Your task to perform on an android device: toggle javascript in the chrome app Image 0: 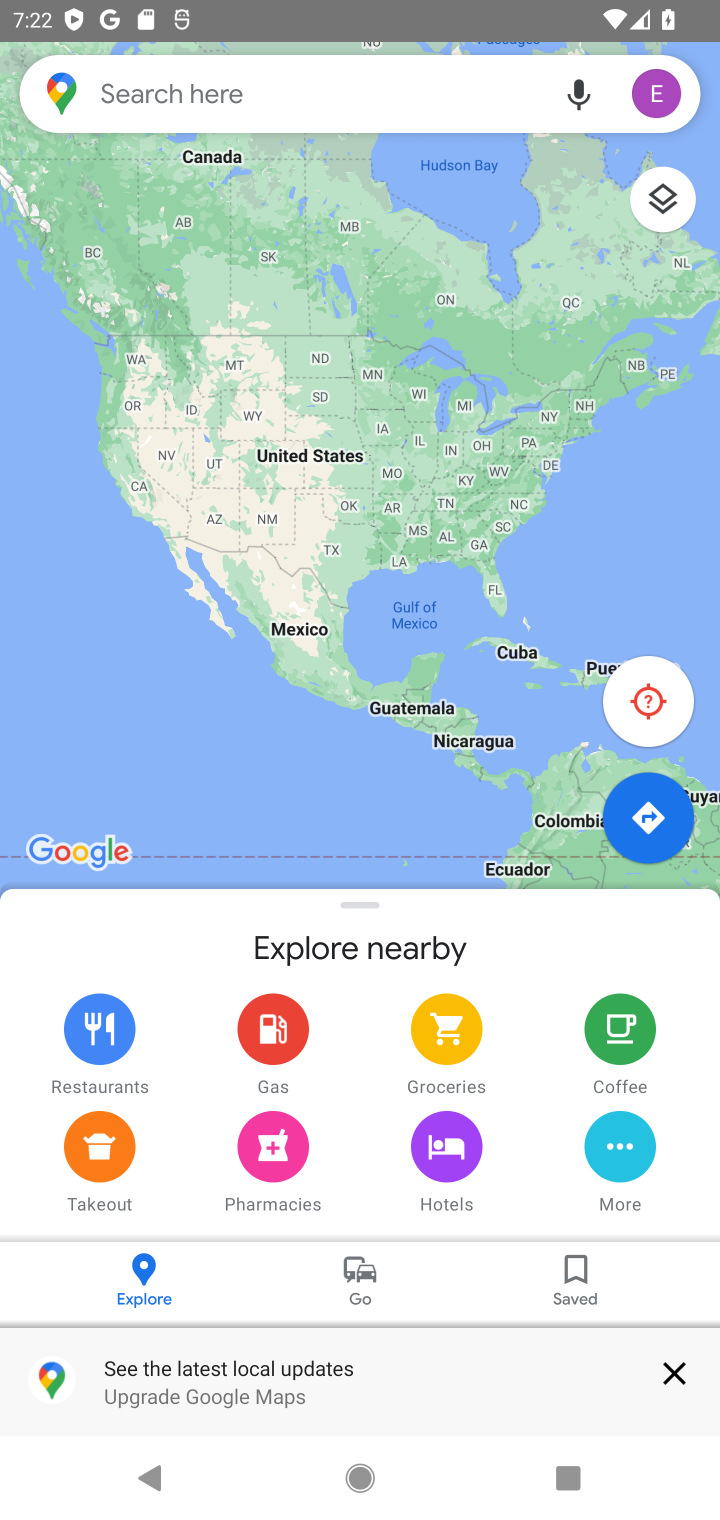
Step 0: press home button
Your task to perform on an android device: toggle javascript in the chrome app Image 1: 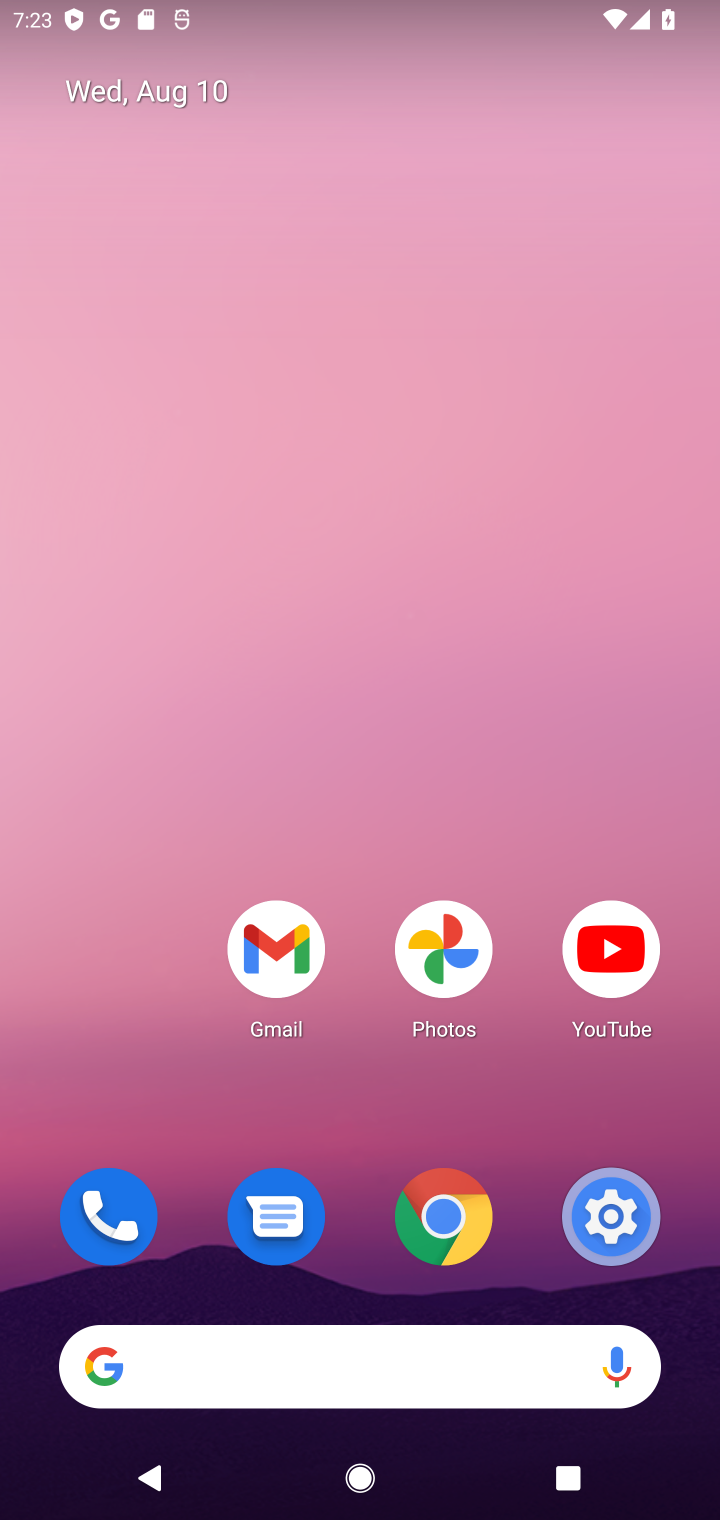
Step 1: click (448, 1210)
Your task to perform on an android device: toggle javascript in the chrome app Image 2: 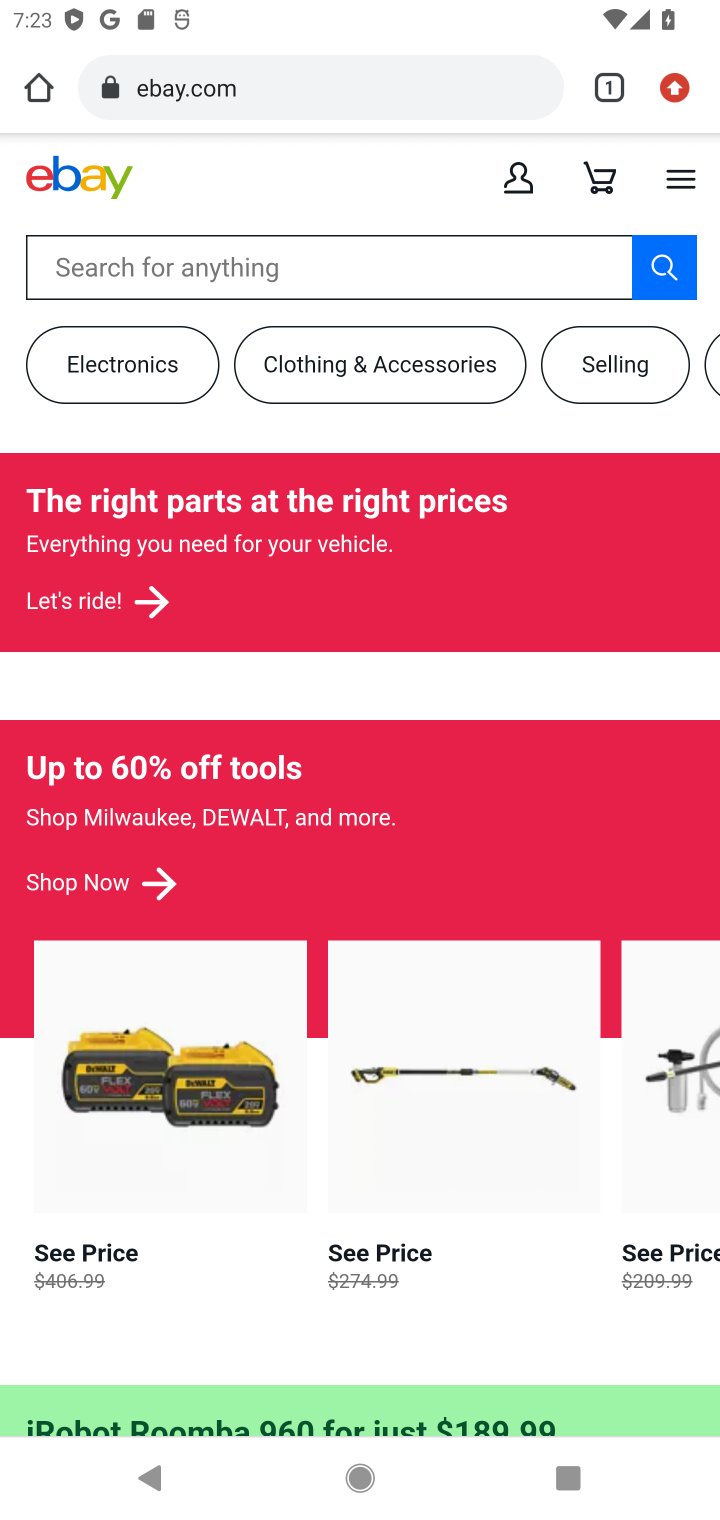
Step 2: click (685, 84)
Your task to perform on an android device: toggle javascript in the chrome app Image 3: 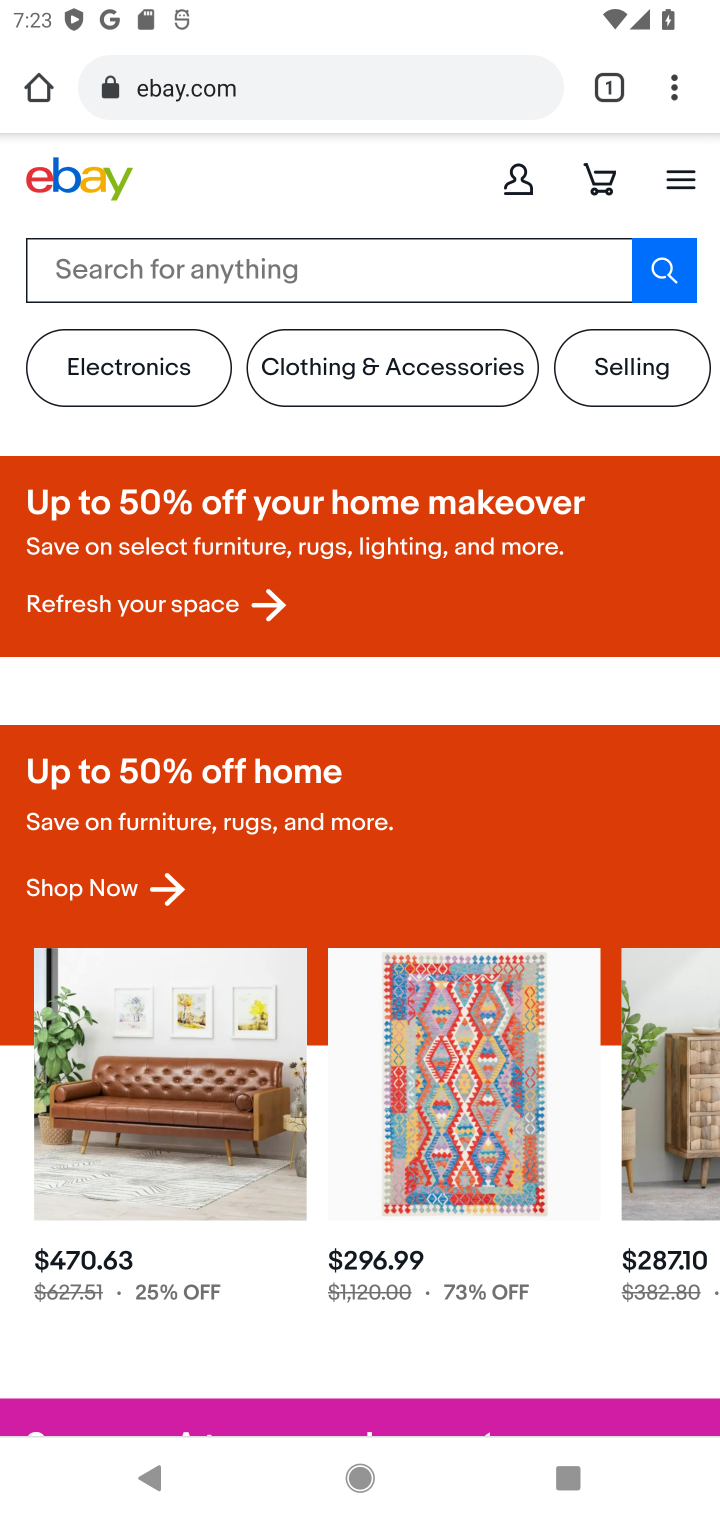
Step 3: click (669, 91)
Your task to perform on an android device: toggle javascript in the chrome app Image 4: 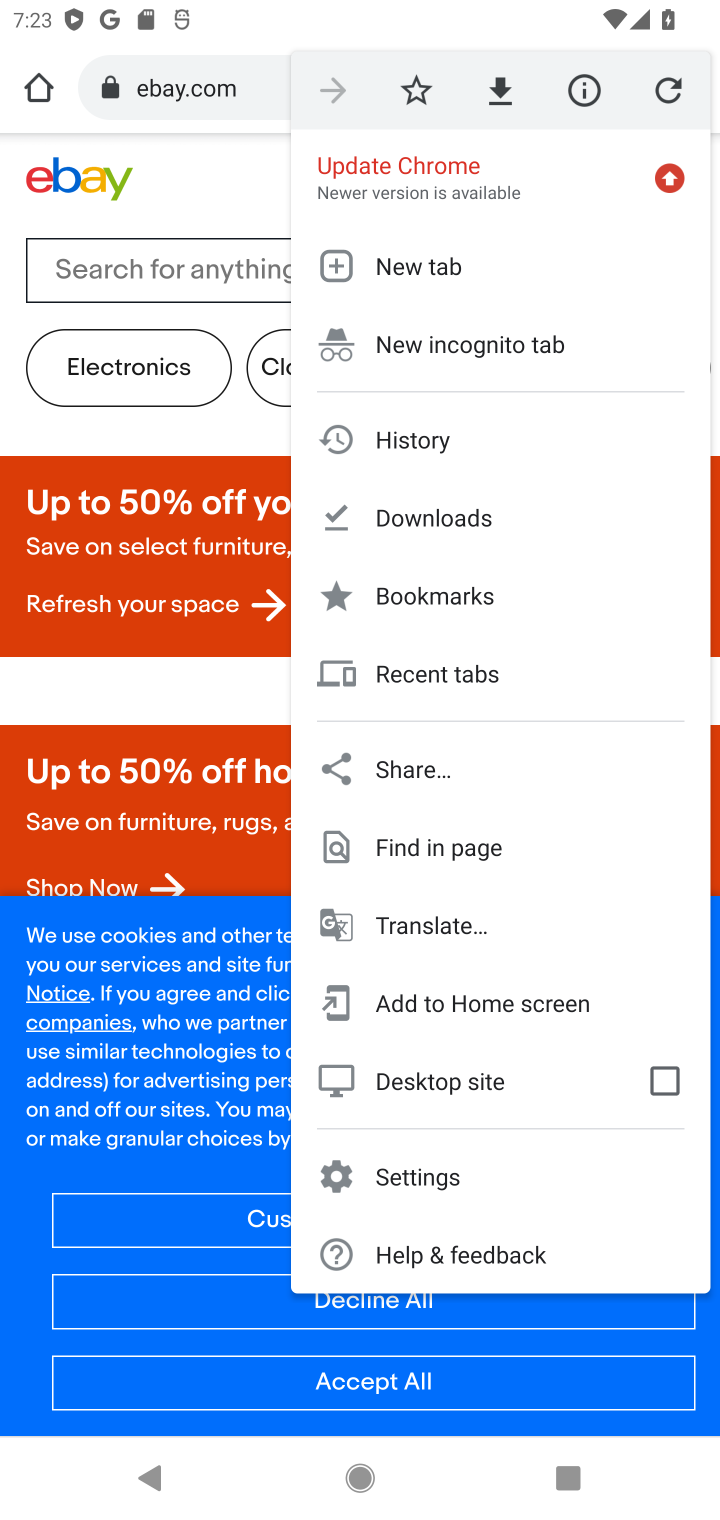
Step 4: click (400, 1162)
Your task to perform on an android device: toggle javascript in the chrome app Image 5: 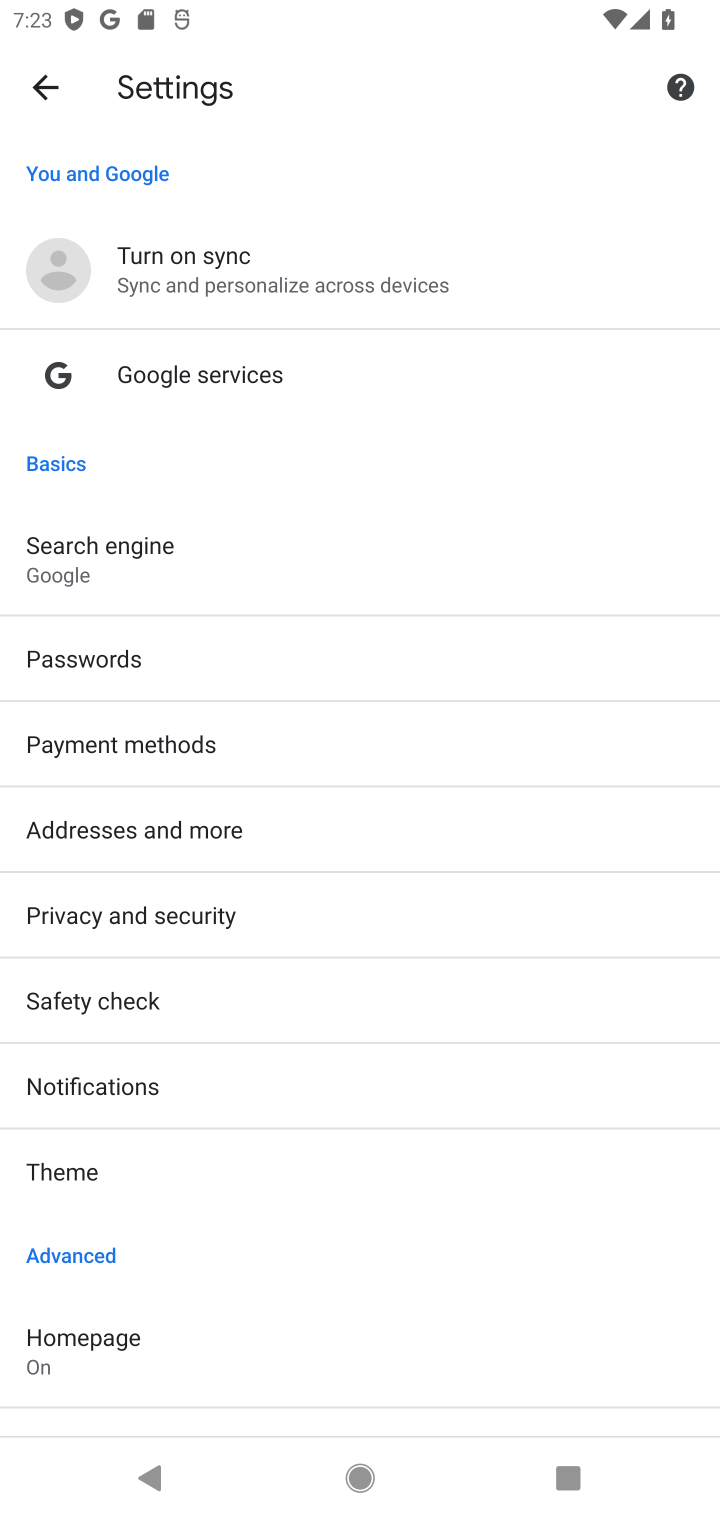
Step 5: drag from (22, 987) to (244, 395)
Your task to perform on an android device: toggle javascript in the chrome app Image 6: 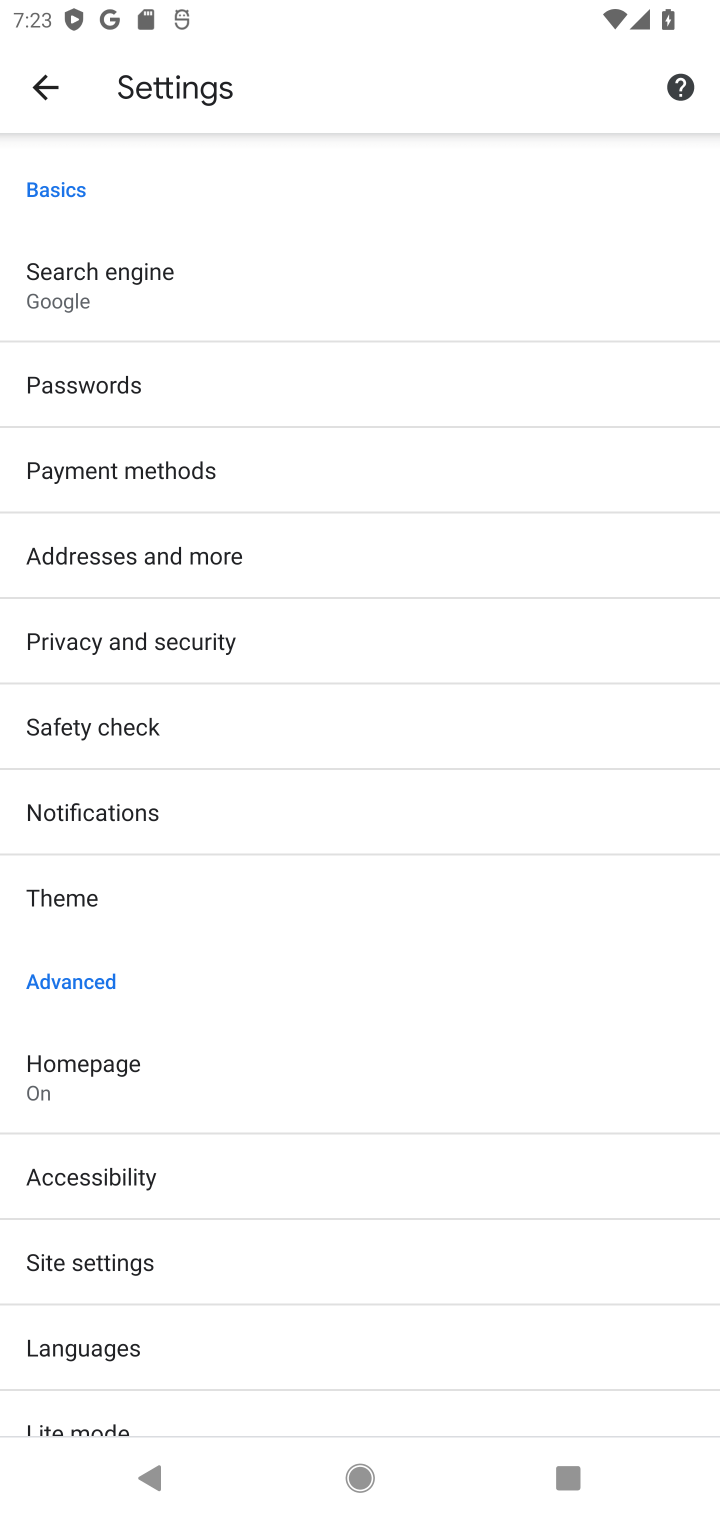
Step 6: click (140, 1277)
Your task to perform on an android device: toggle javascript in the chrome app Image 7: 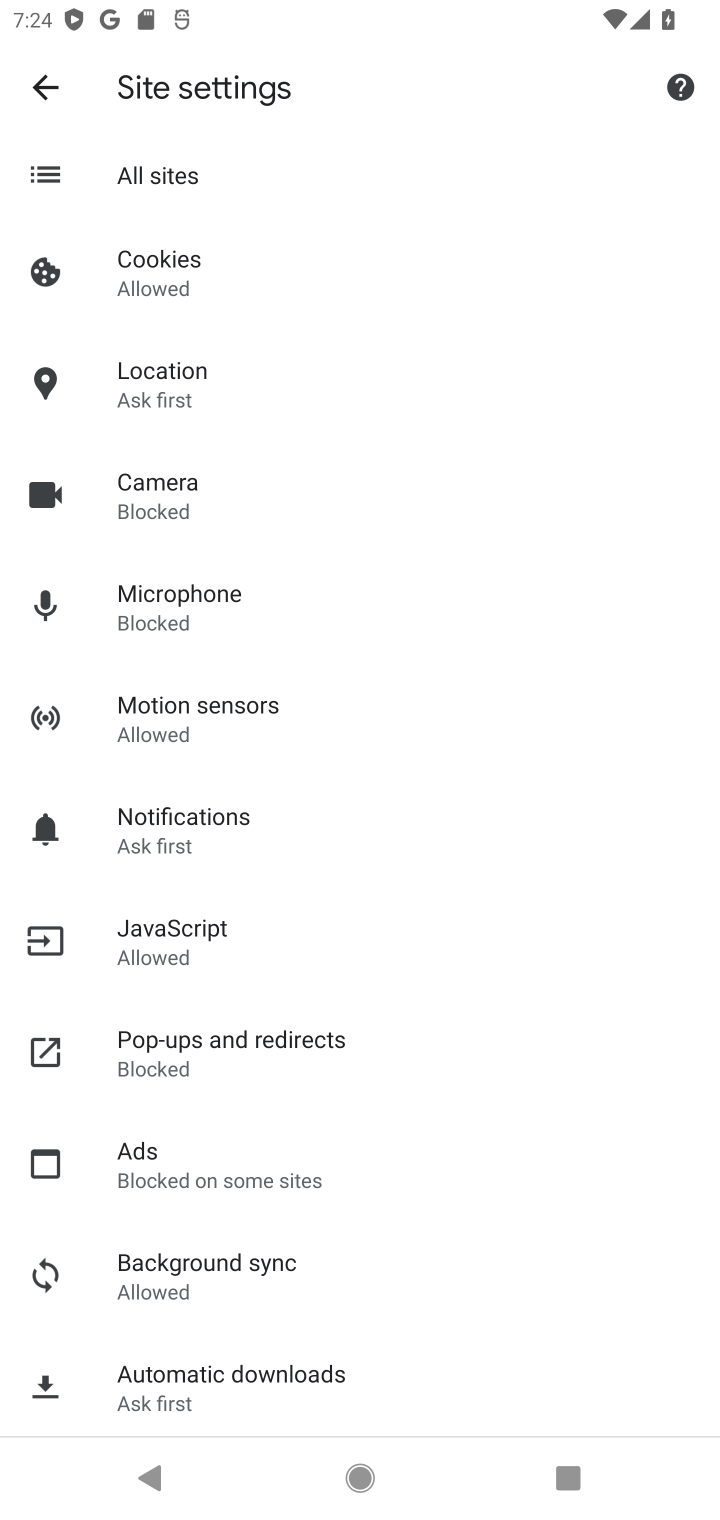
Step 7: click (131, 947)
Your task to perform on an android device: toggle javascript in the chrome app Image 8: 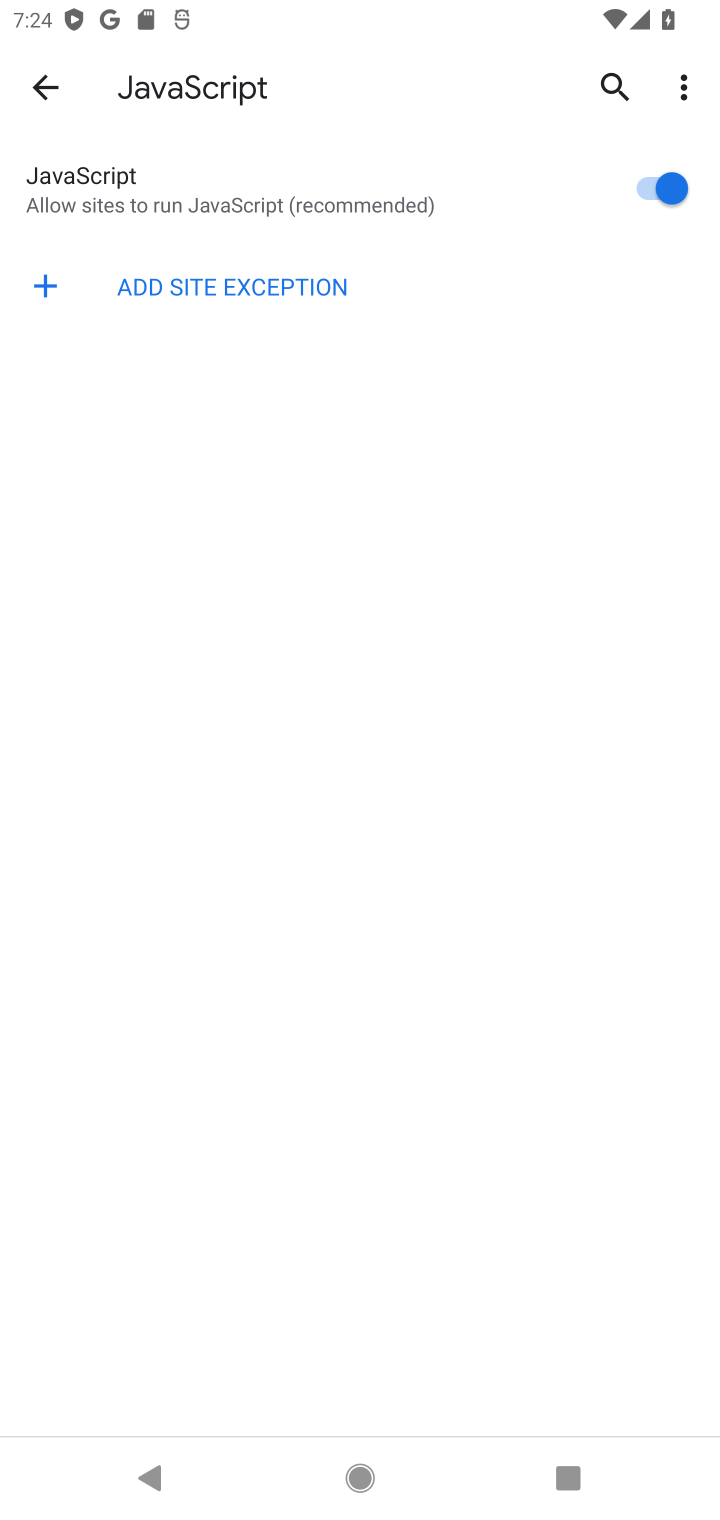
Step 8: click (672, 189)
Your task to perform on an android device: toggle javascript in the chrome app Image 9: 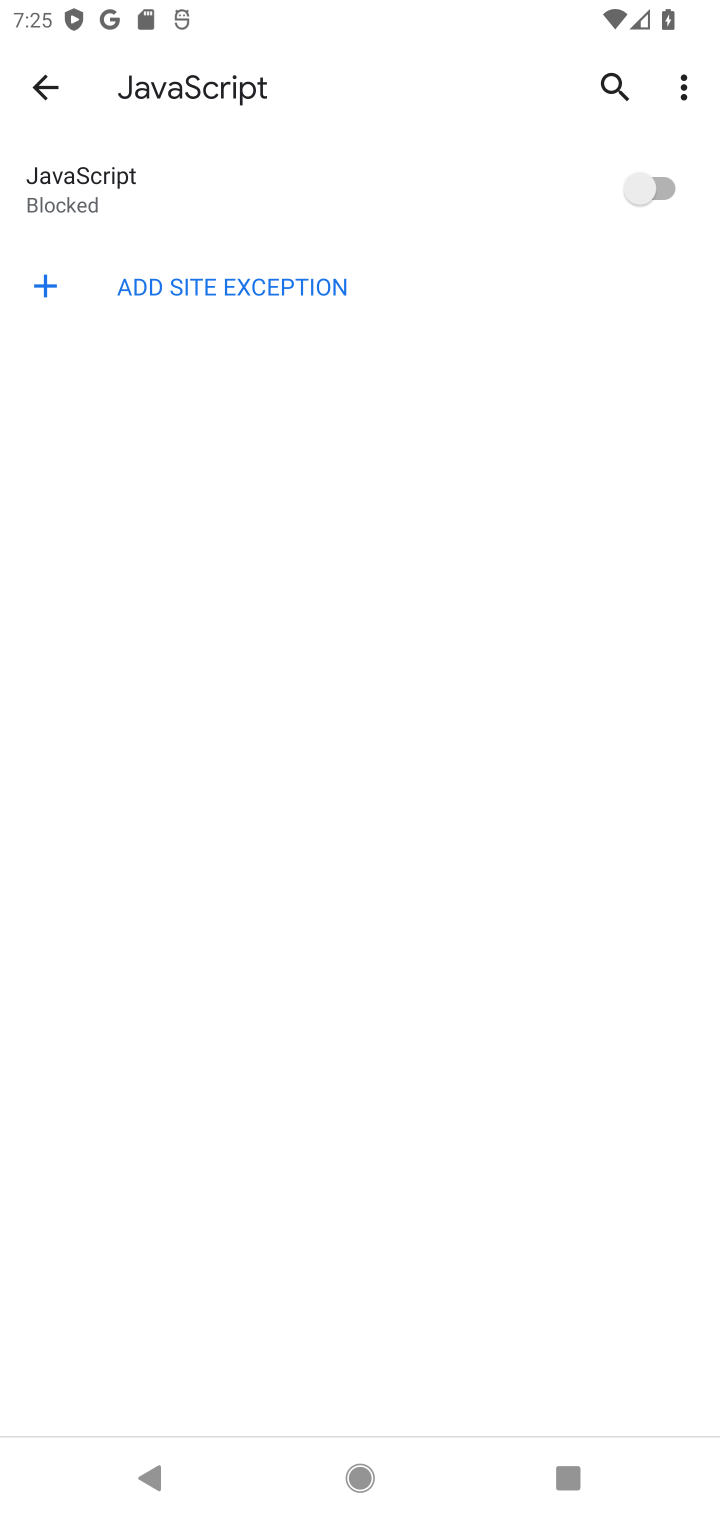
Step 9: task complete